Your task to perform on an android device: turn pop-ups on in chrome Image 0: 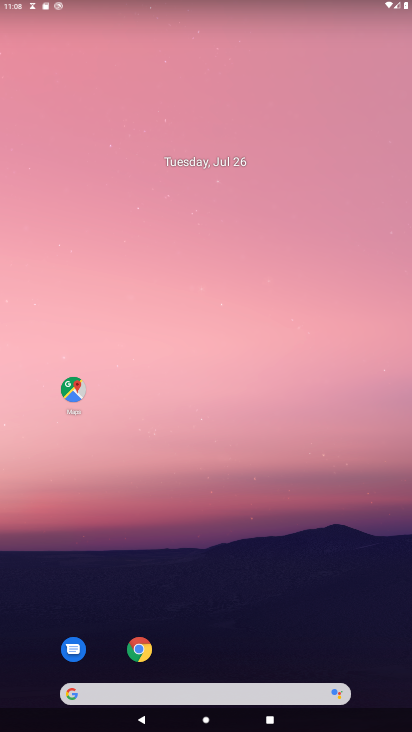
Step 0: drag from (229, 596) to (247, 145)
Your task to perform on an android device: turn pop-ups on in chrome Image 1: 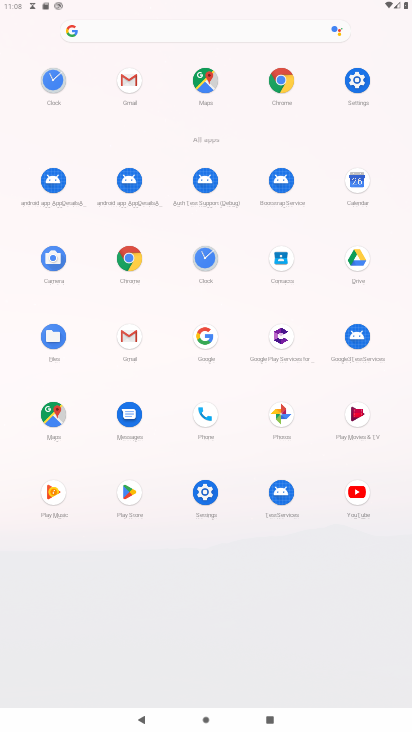
Step 1: click (135, 269)
Your task to perform on an android device: turn pop-ups on in chrome Image 2: 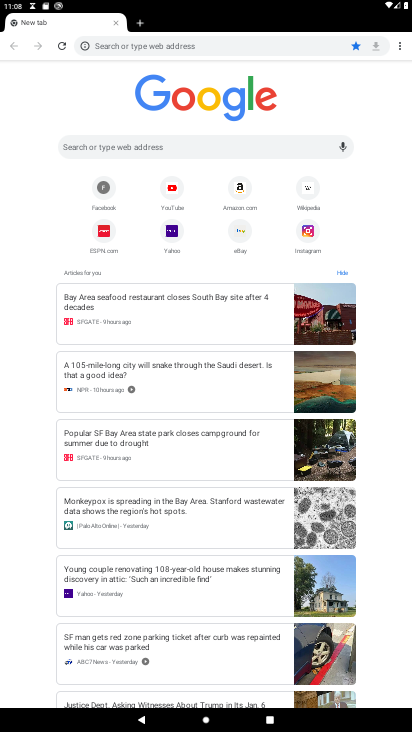
Step 2: click (400, 42)
Your task to perform on an android device: turn pop-ups on in chrome Image 3: 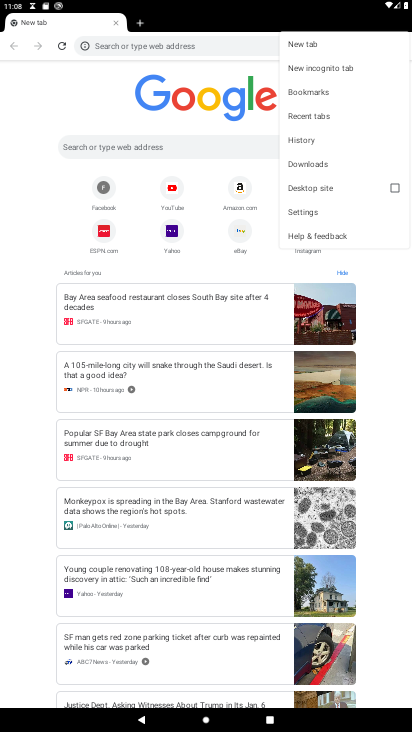
Step 3: click (295, 209)
Your task to perform on an android device: turn pop-ups on in chrome Image 4: 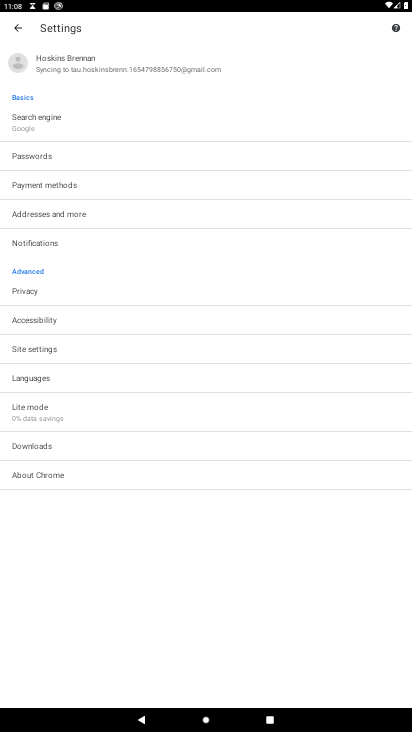
Step 4: click (45, 346)
Your task to perform on an android device: turn pop-ups on in chrome Image 5: 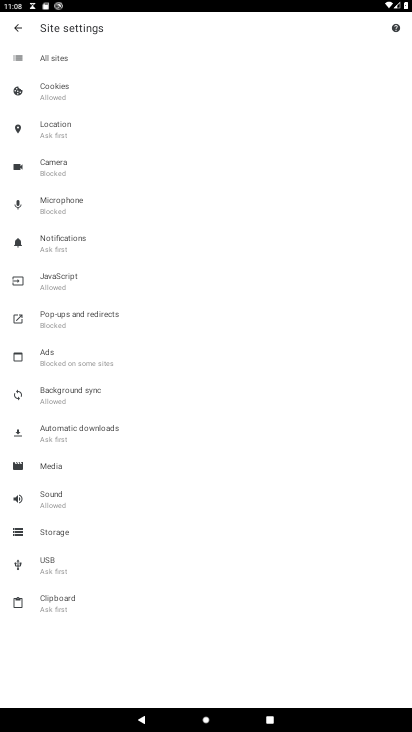
Step 5: click (62, 323)
Your task to perform on an android device: turn pop-ups on in chrome Image 6: 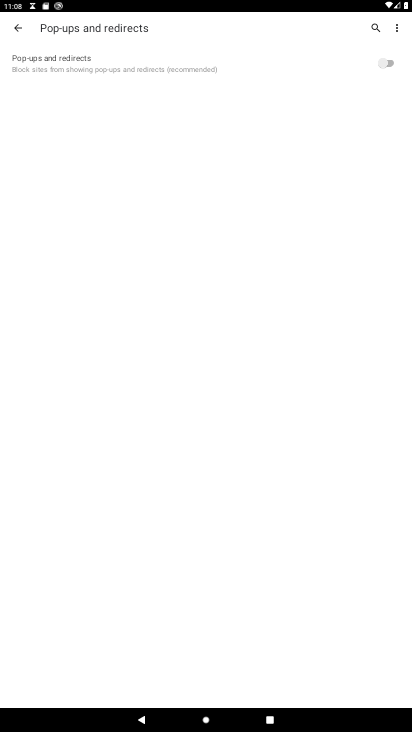
Step 6: click (361, 62)
Your task to perform on an android device: turn pop-ups on in chrome Image 7: 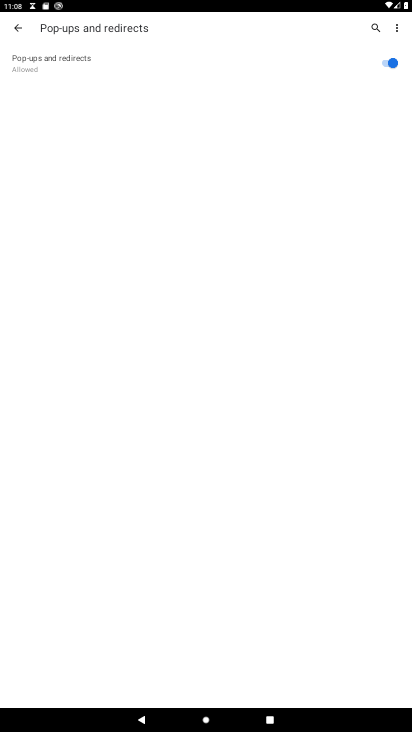
Step 7: task complete